Your task to perform on an android device: Go to sound settings Image 0: 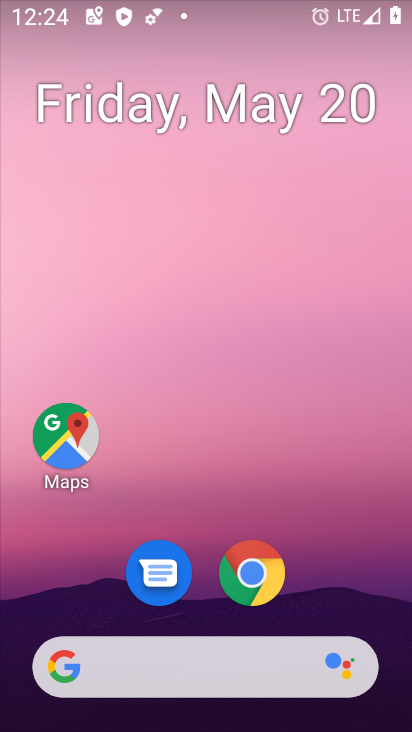
Step 0: drag from (218, 596) to (234, 78)
Your task to perform on an android device: Go to sound settings Image 1: 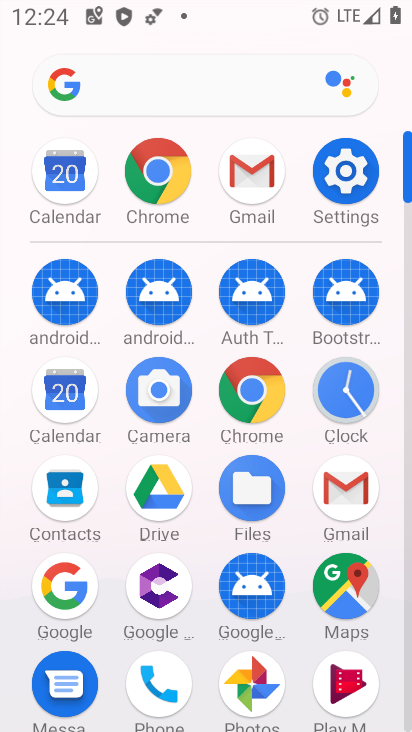
Step 1: click (344, 175)
Your task to perform on an android device: Go to sound settings Image 2: 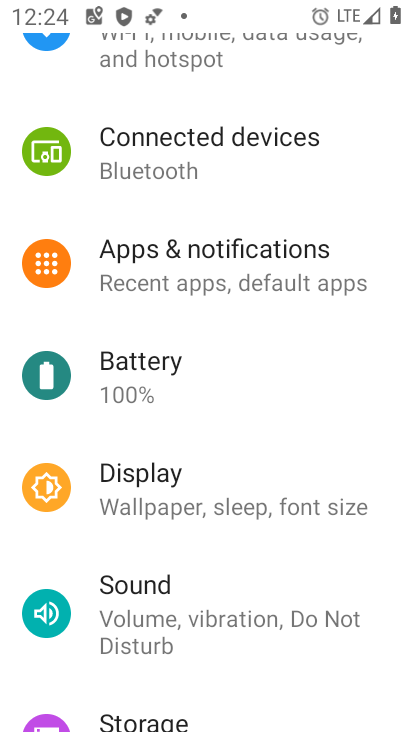
Step 2: click (203, 606)
Your task to perform on an android device: Go to sound settings Image 3: 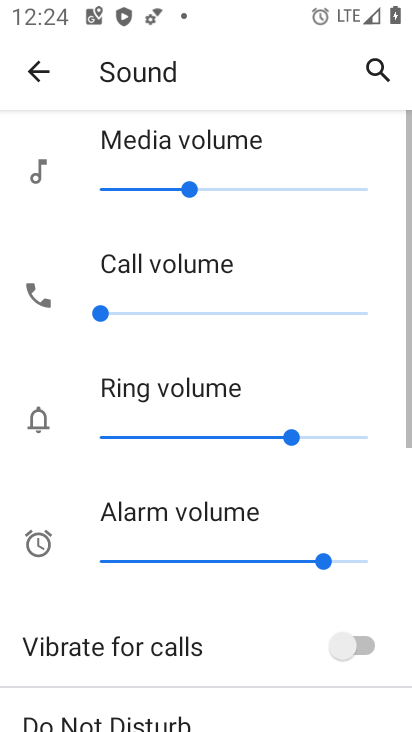
Step 3: task complete